Your task to perform on an android device: Show me recent news Image 0: 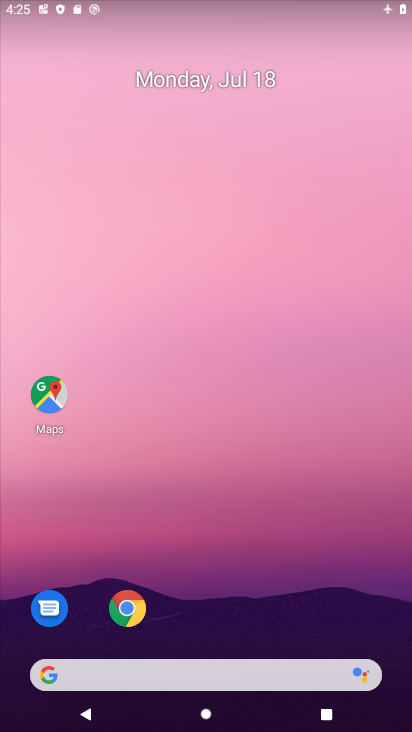
Step 0: drag from (334, 605) to (376, 102)
Your task to perform on an android device: Show me recent news Image 1: 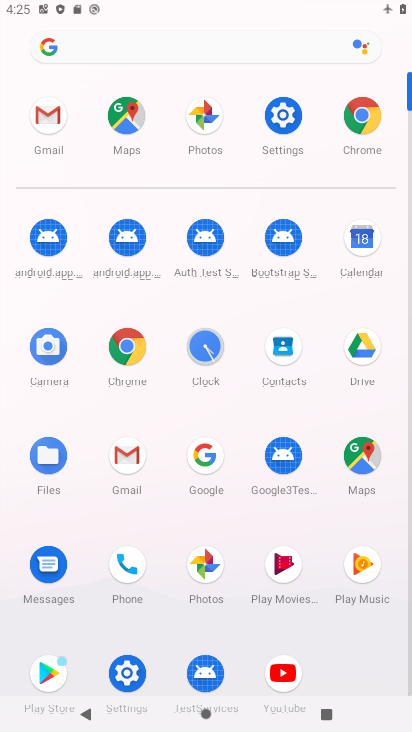
Step 1: click (363, 113)
Your task to perform on an android device: Show me recent news Image 2: 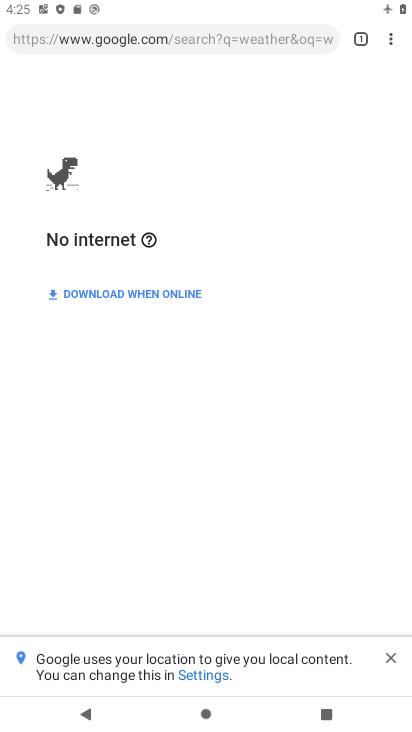
Step 2: click (223, 30)
Your task to perform on an android device: Show me recent news Image 3: 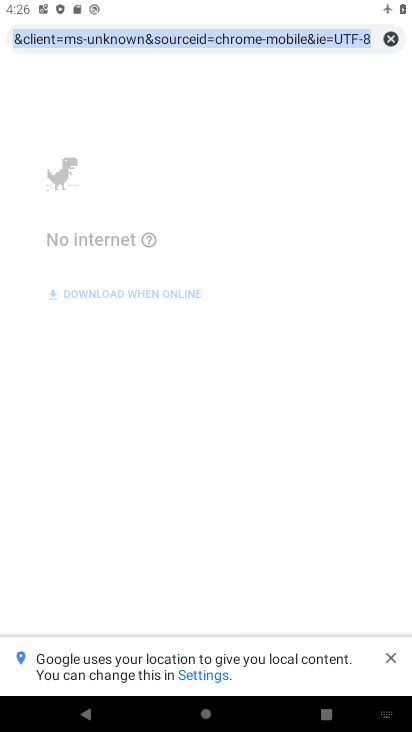
Step 3: type "news"
Your task to perform on an android device: Show me recent news Image 4: 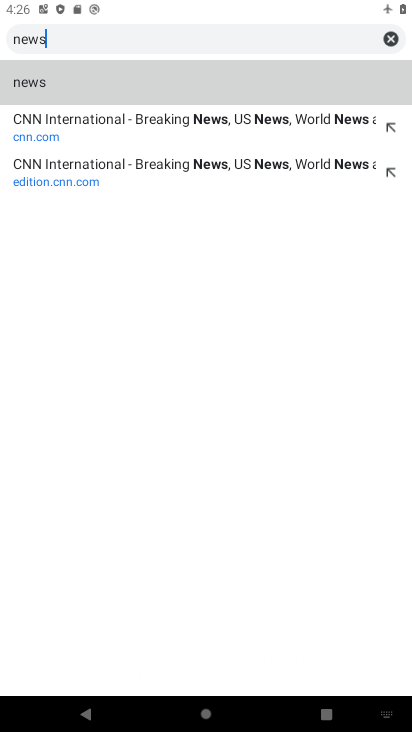
Step 4: click (35, 85)
Your task to perform on an android device: Show me recent news Image 5: 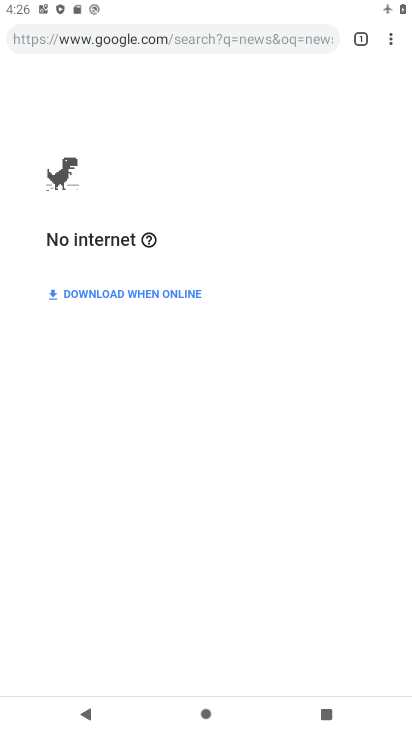
Step 5: task complete